Your task to perform on an android device: Open internet settings Image 0: 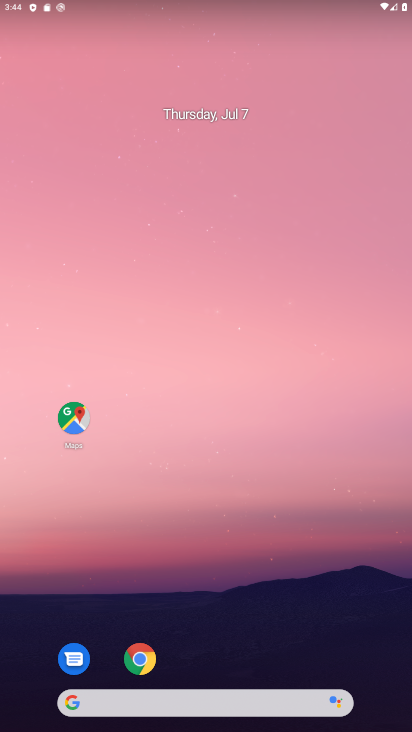
Step 0: drag from (222, 505) to (263, 148)
Your task to perform on an android device: Open internet settings Image 1: 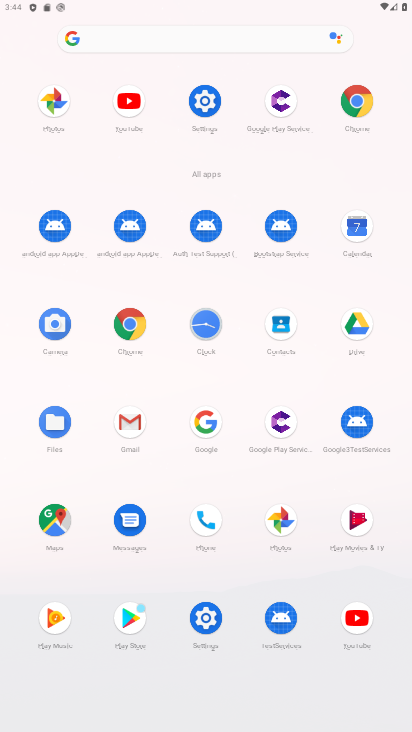
Step 1: click (202, 624)
Your task to perform on an android device: Open internet settings Image 2: 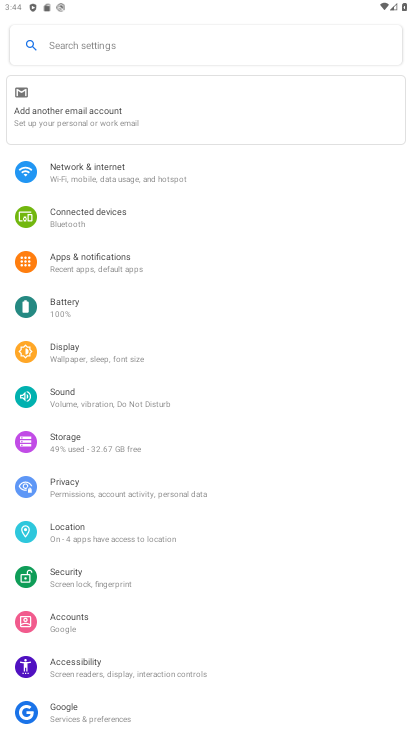
Step 2: click (140, 178)
Your task to perform on an android device: Open internet settings Image 3: 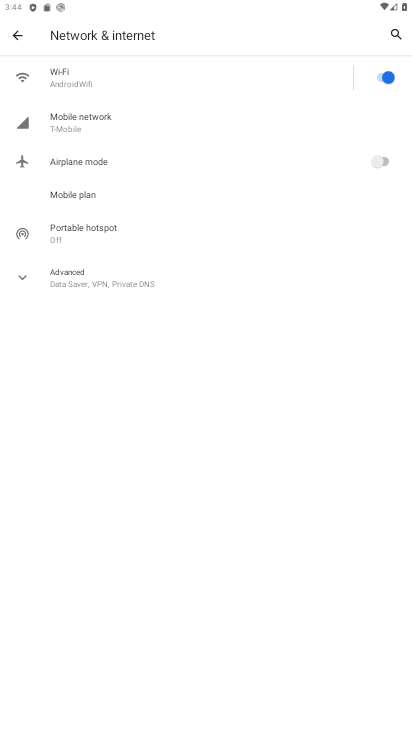
Step 3: task complete